Your task to perform on an android device: Set an alarm for 1pm Image 0: 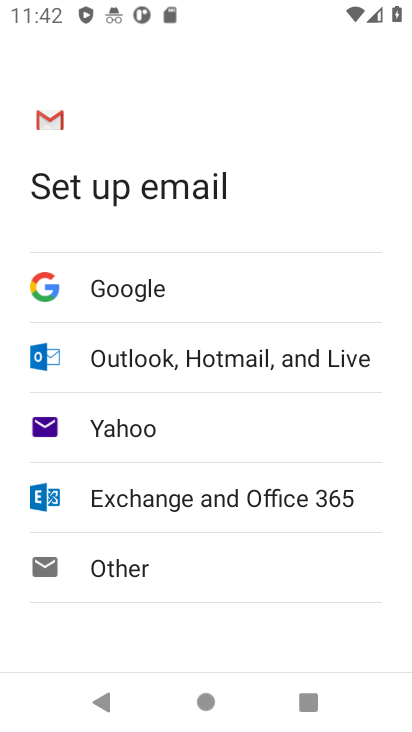
Step 0: press home button
Your task to perform on an android device: Set an alarm for 1pm Image 1: 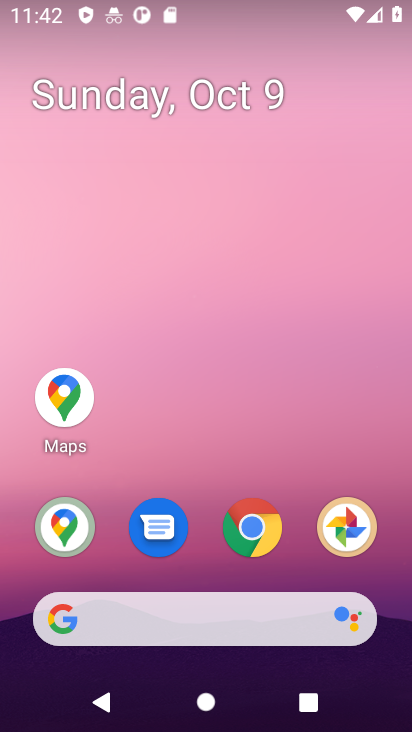
Step 1: drag from (220, 471) to (319, 0)
Your task to perform on an android device: Set an alarm for 1pm Image 2: 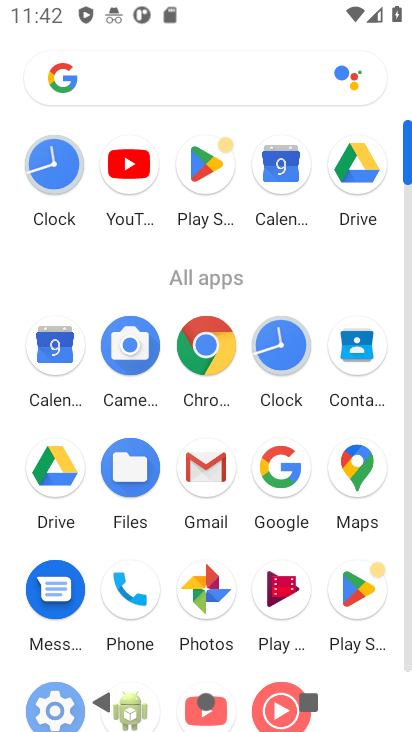
Step 2: click (288, 358)
Your task to perform on an android device: Set an alarm for 1pm Image 3: 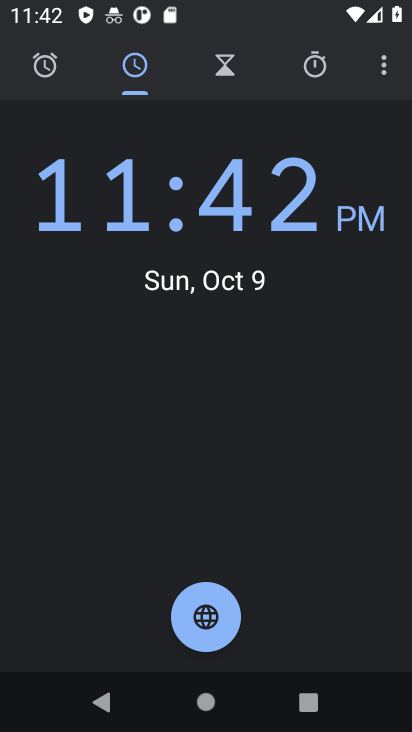
Step 3: click (313, 61)
Your task to perform on an android device: Set an alarm for 1pm Image 4: 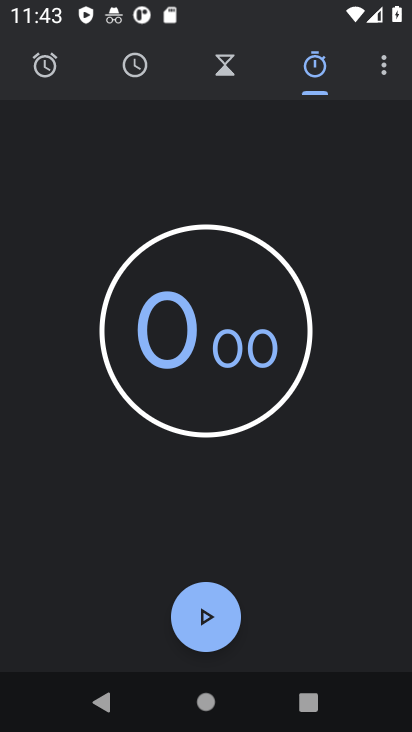
Step 4: click (52, 66)
Your task to perform on an android device: Set an alarm for 1pm Image 5: 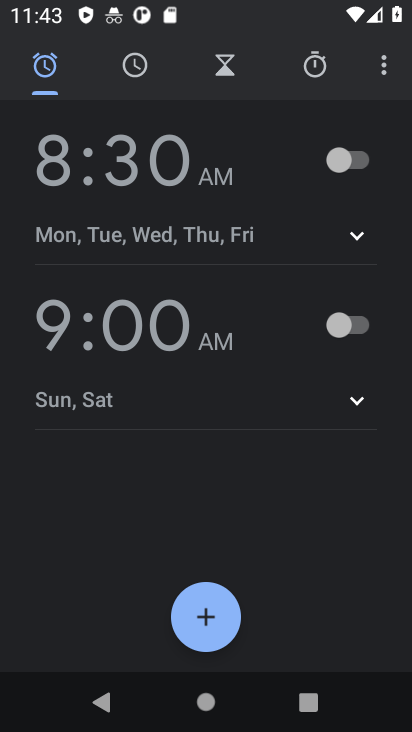
Step 5: click (109, 335)
Your task to perform on an android device: Set an alarm for 1pm Image 6: 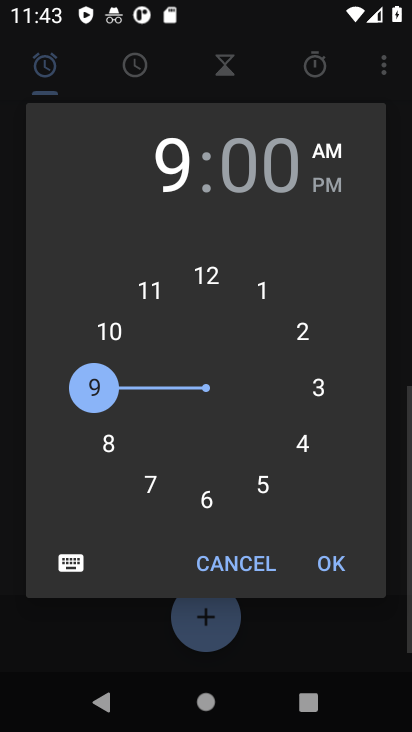
Step 6: click (273, 293)
Your task to perform on an android device: Set an alarm for 1pm Image 7: 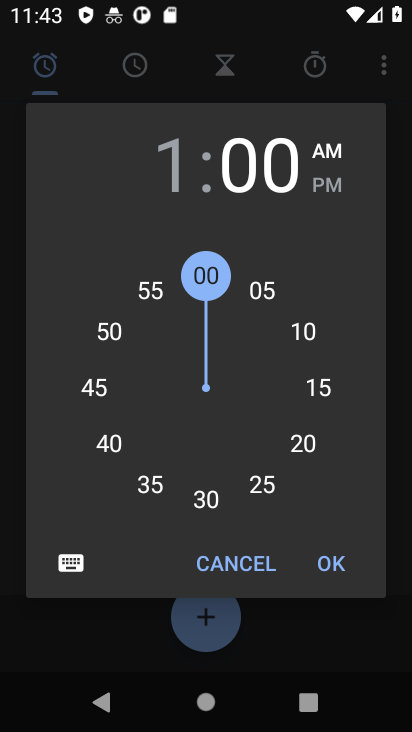
Step 7: click (330, 187)
Your task to perform on an android device: Set an alarm for 1pm Image 8: 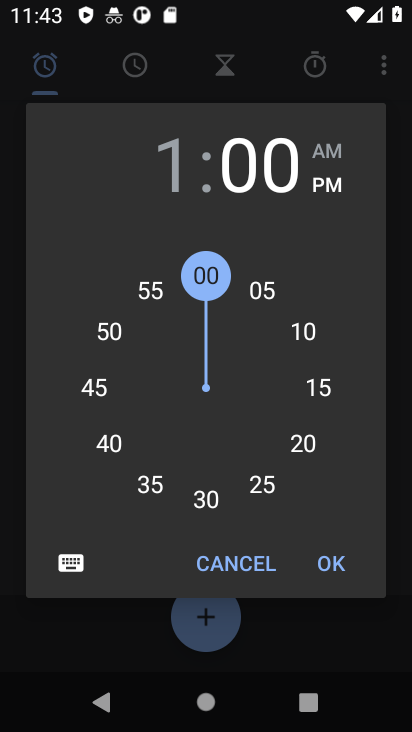
Step 8: click (342, 558)
Your task to perform on an android device: Set an alarm for 1pm Image 9: 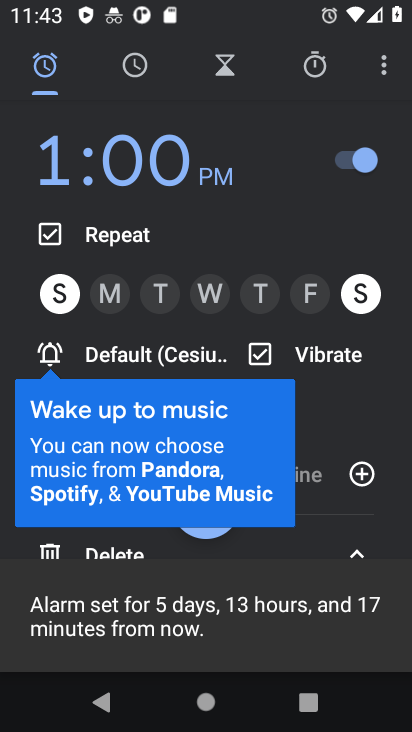
Step 9: task complete